Your task to perform on an android device: turn on the 12-hour format for clock Image 0: 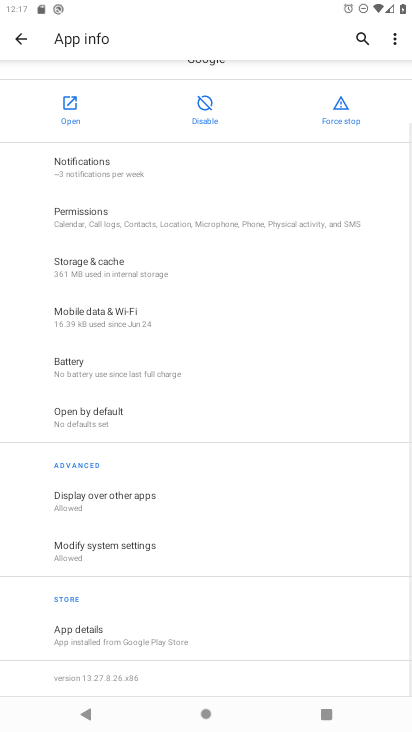
Step 0: press home button
Your task to perform on an android device: turn on the 12-hour format for clock Image 1: 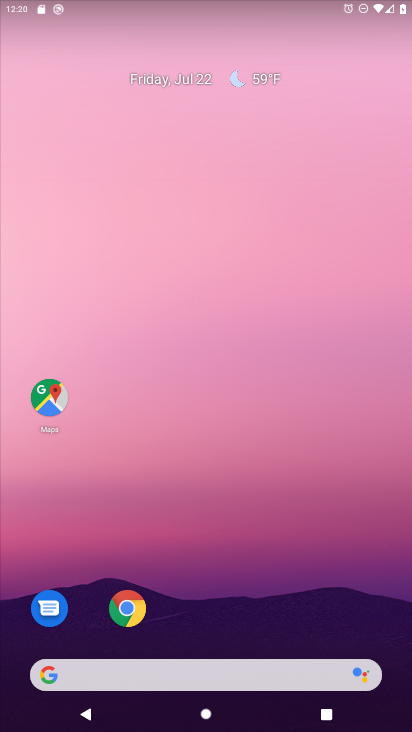
Step 1: drag from (355, 614) to (155, 1)
Your task to perform on an android device: turn on the 12-hour format for clock Image 2: 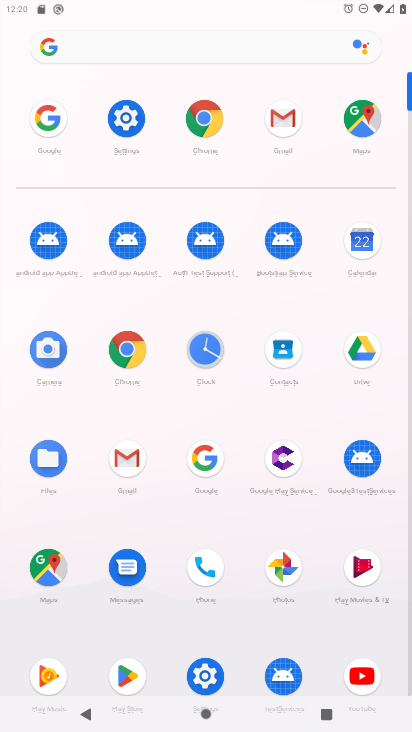
Step 2: click (200, 343)
Your task to perform on an android device: turn on the 12-hour format for clock Image 3: 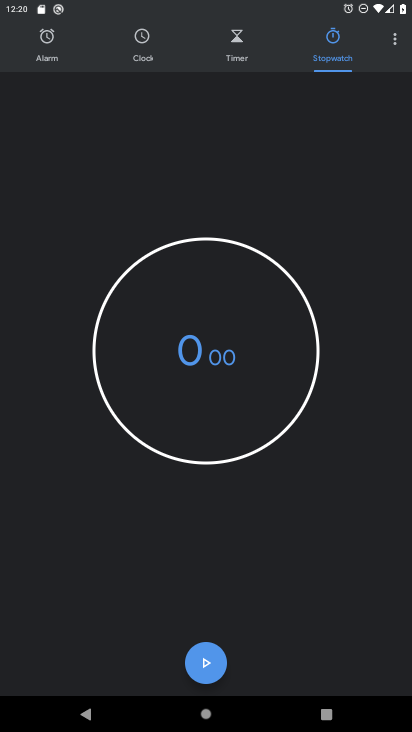
Step 3: click (393, 40)
Your task to perform on an android device: turn on the 12-hour format for clock Image 4: 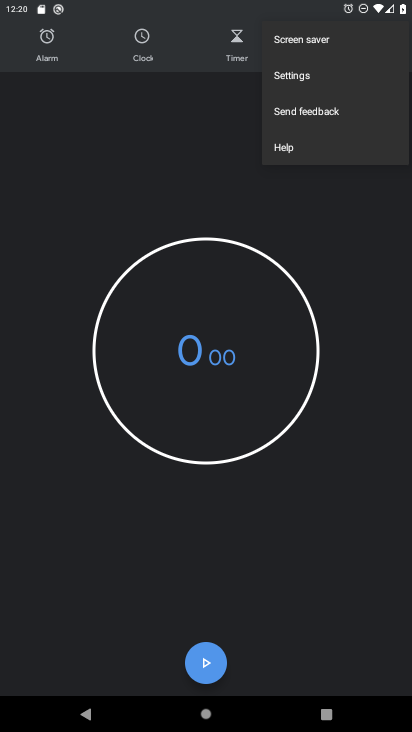
Step 4: click (320, 69)
Your task to perform on an android device: turn on the 12-hour format for clock Image 5: 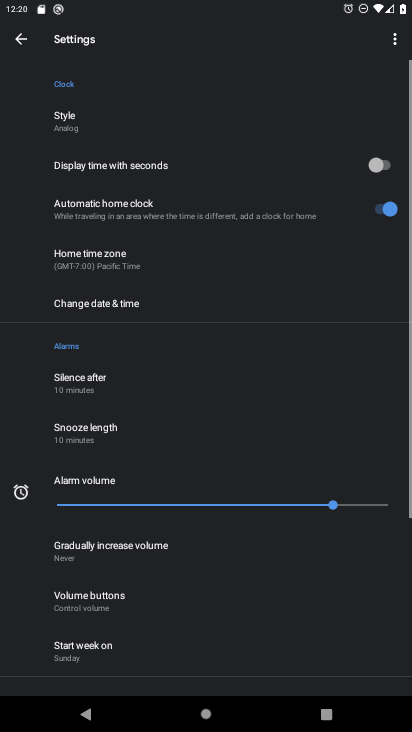
Step 5: click (93, 308)
Your task to perform on an android device: turn on the 12-hour format for clock Image 6: 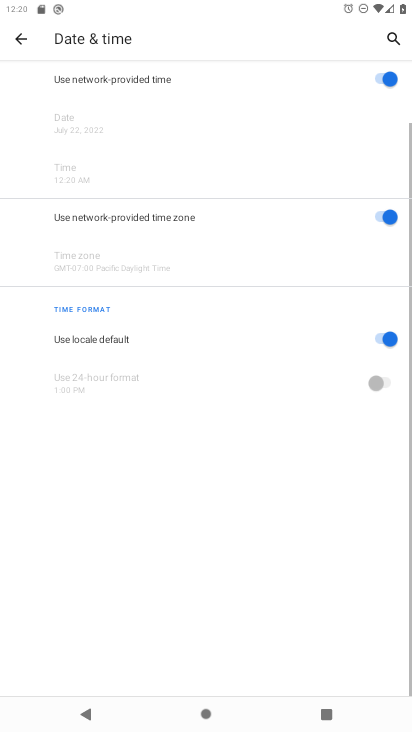
Step 6: task complete